Your task to perform on an android device: What's the weather today? Image 0: 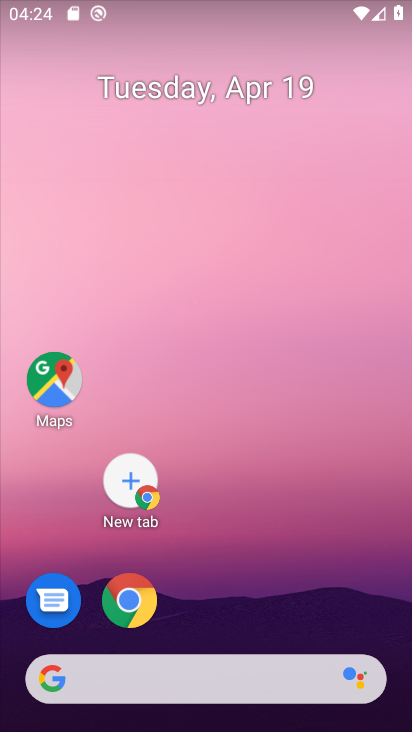
Step 0: click (229, 681)
Your task to perform on an android device: What's the weather today? Image 1: 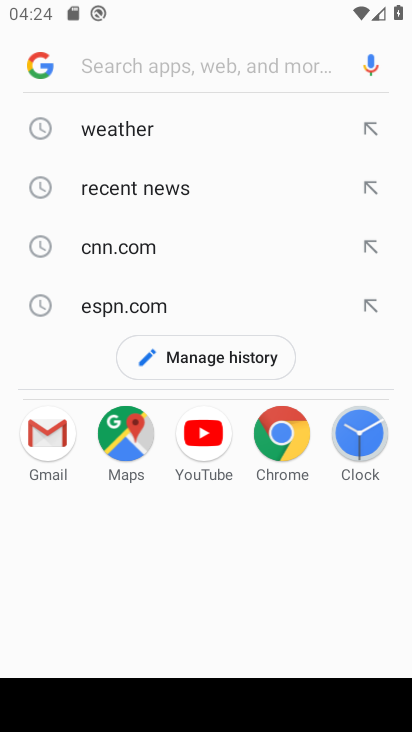
Step 1: click (39, 57)
Your task to perform on an android device: What's the weather today? Image 2: 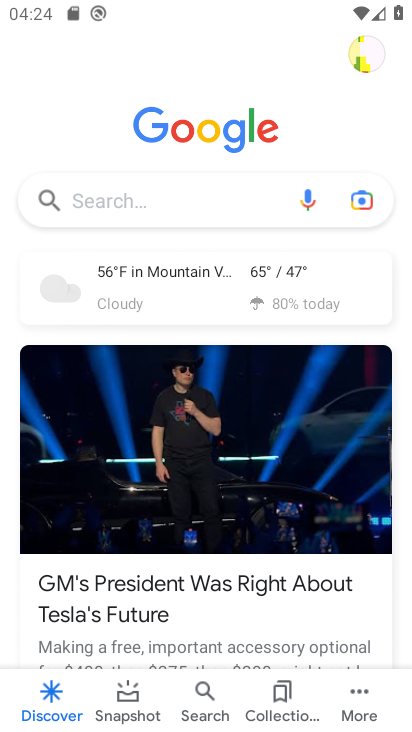
Step 2: click (98, 276)
Your task to perform on an android device: What's the weather today? Image 3: 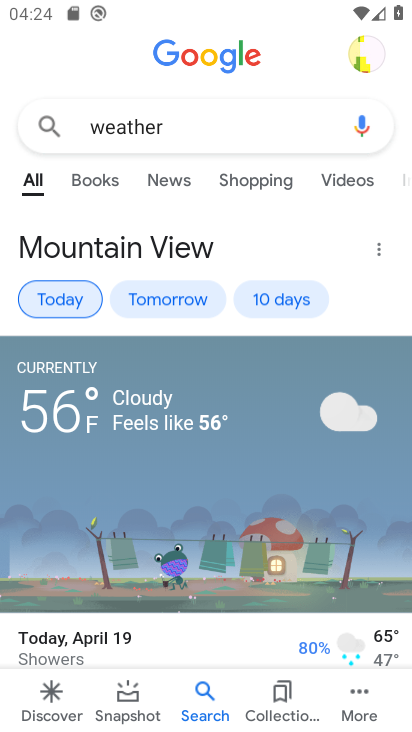
Step 3: task complete